Your task to perform on an android device: open app "Viber Messenger" Image 0: 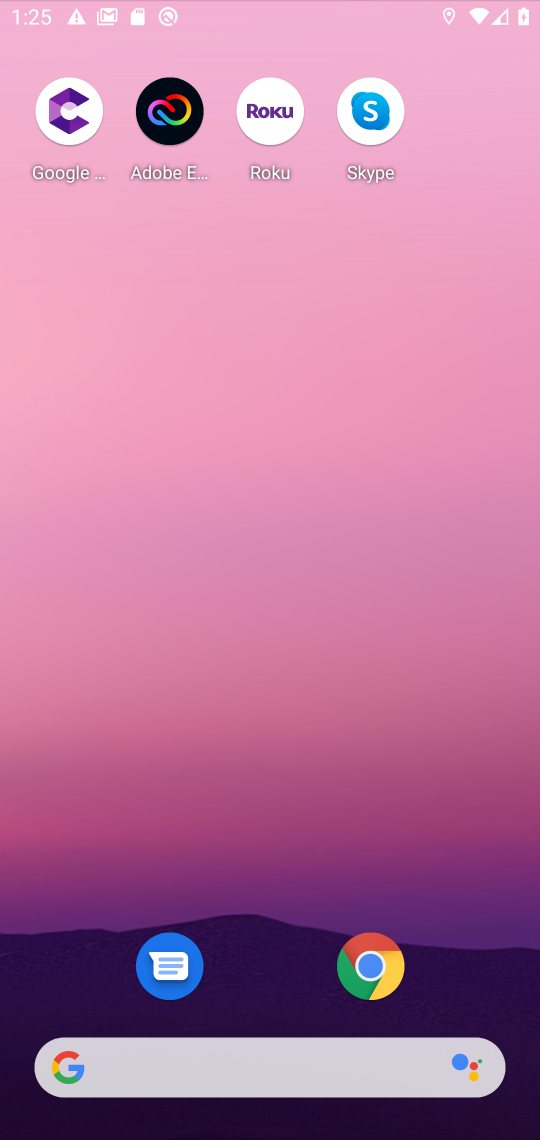
Step 0: press home button
Your task to perform on an android device: open app "Viber Messenger" Image 1: 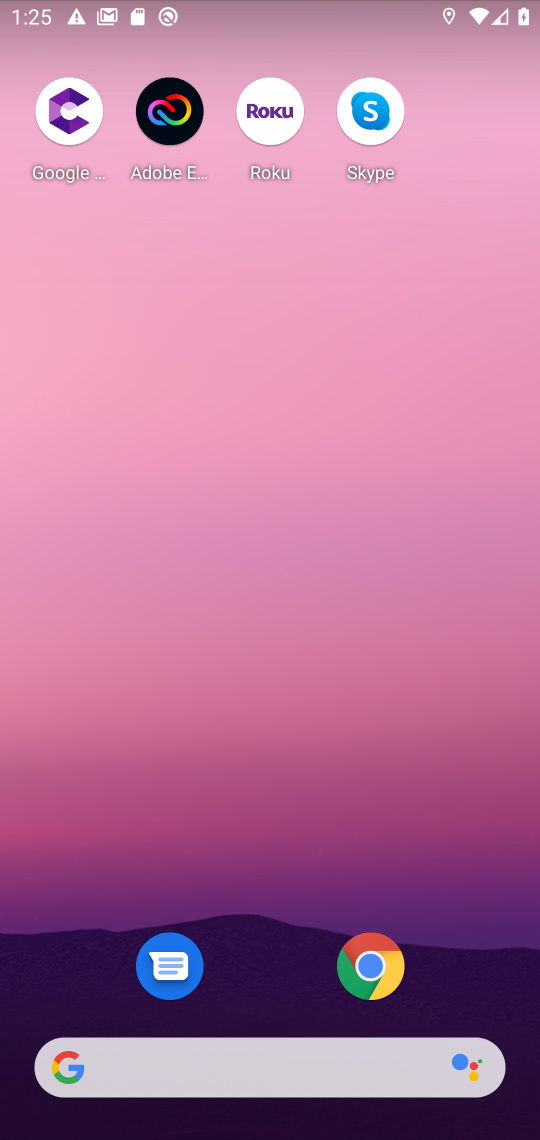
Step 1: drag from (224, 997) to (248, 149)
Your task to perform on an android device: open app "Viber Messenger" Image 2: 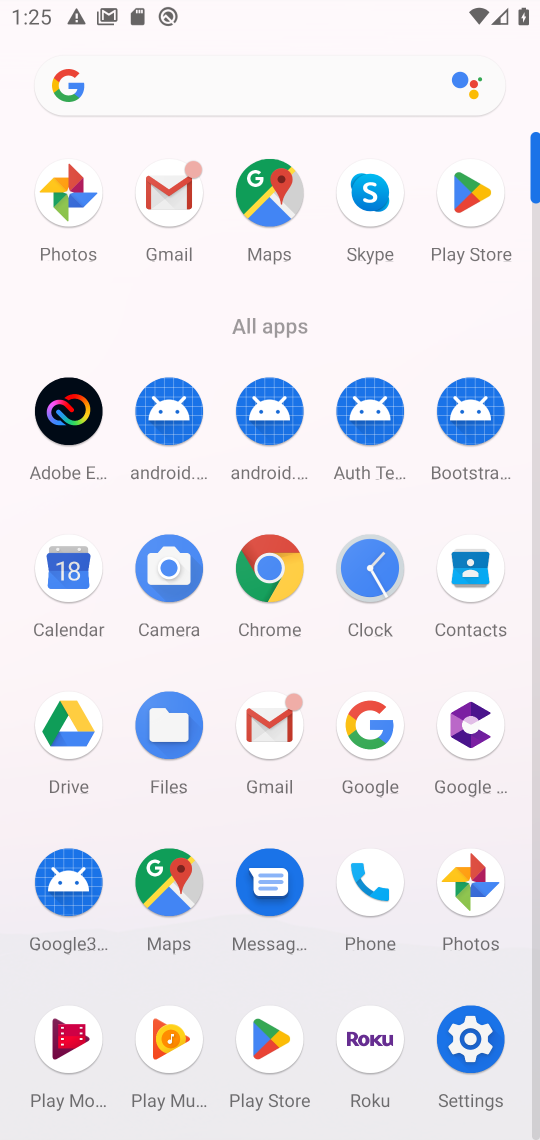
Step 2: click (263, 1032)
Your task to perform on an android device: open app "Viber Messenger" Image 3: 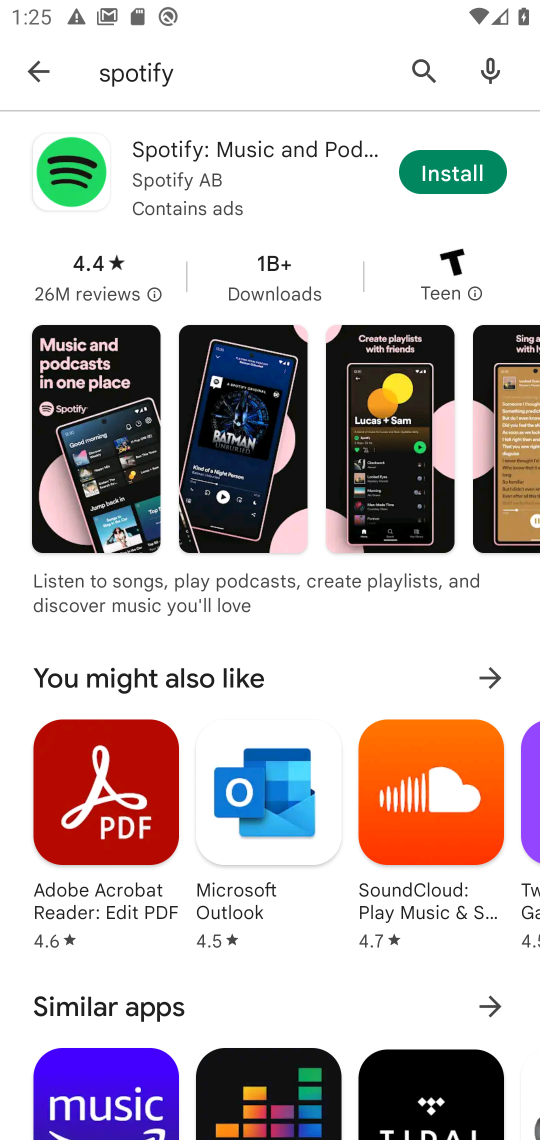
Step 3: click (13, 67)
Your task to perform on an android device: open app "Viber Messenger" Image 4: 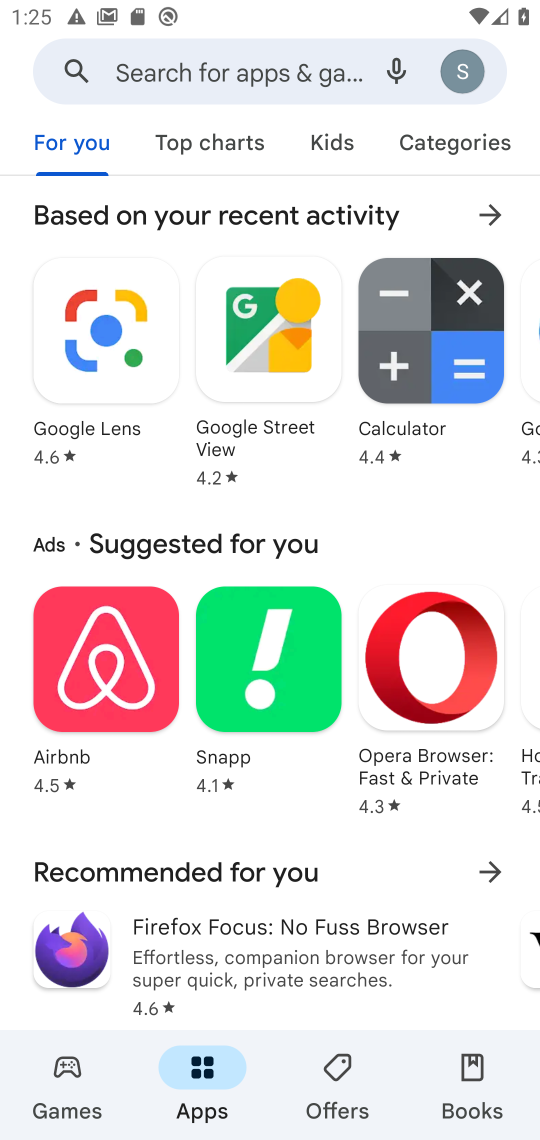
Step 4: click (165, 68)
Your task to perform on an android device: open app "Viber Messenger" Image 5: 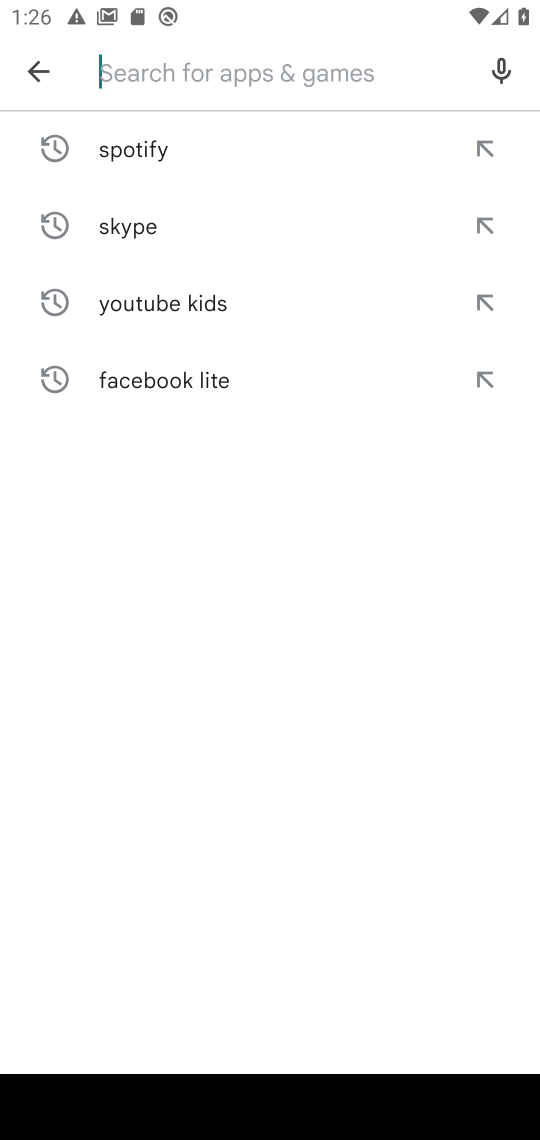
Step 5: type "Viber Messenge"
Your task to perform on an android device: open app "Viber Messenger" Image 6: 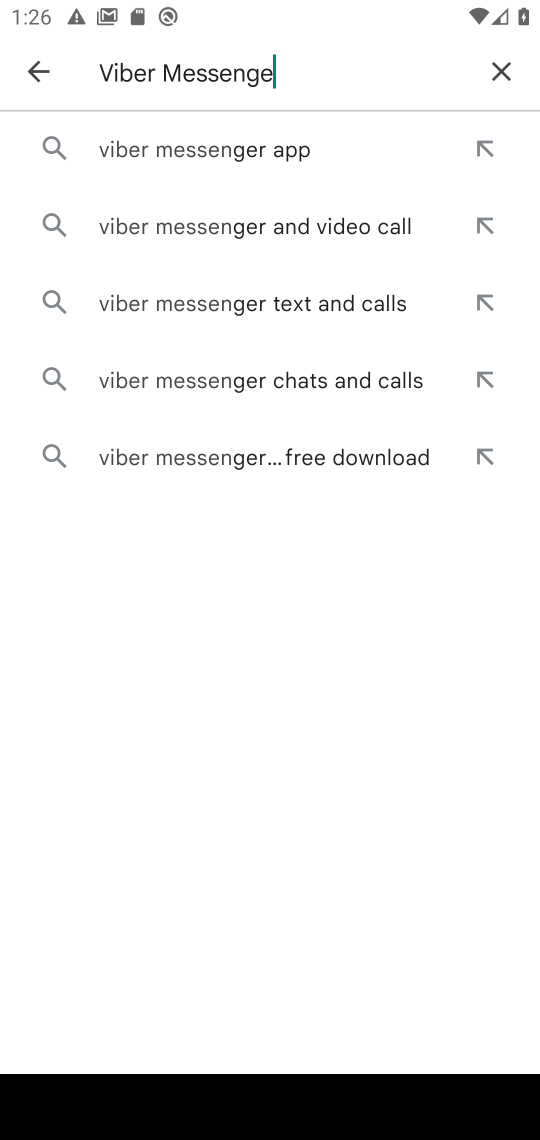
Step 6: type ""
Your task to perform on an android device: open app "Viber Messenger" Image 7: 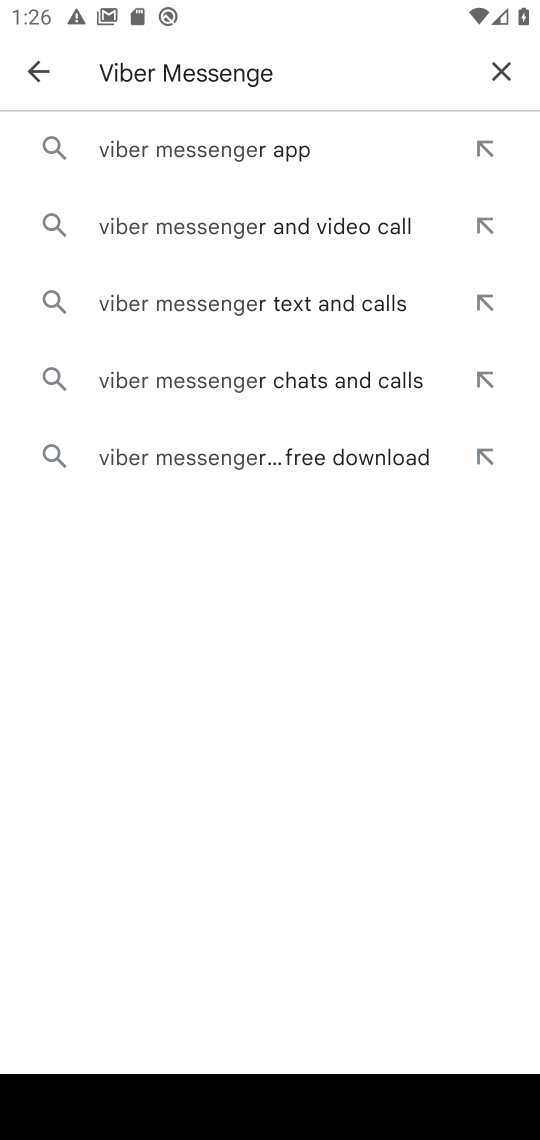
Step 7: click (127, 144)
Your task to perform on an android device: open app "Viber Messenger" Image 8: 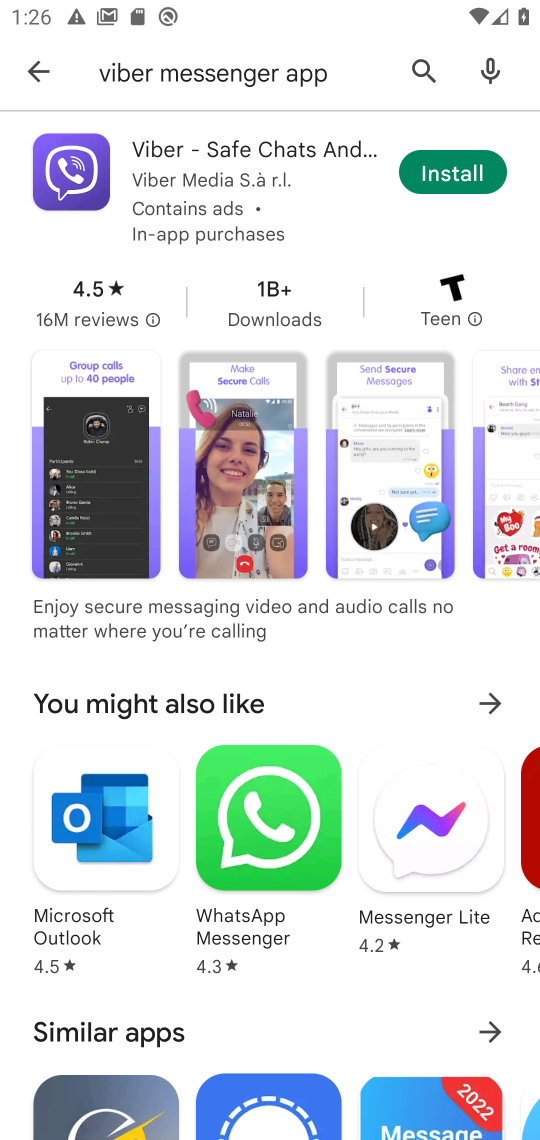
Step 8: task complete